Your task to perform on an android device: Go to display settings Image 0: 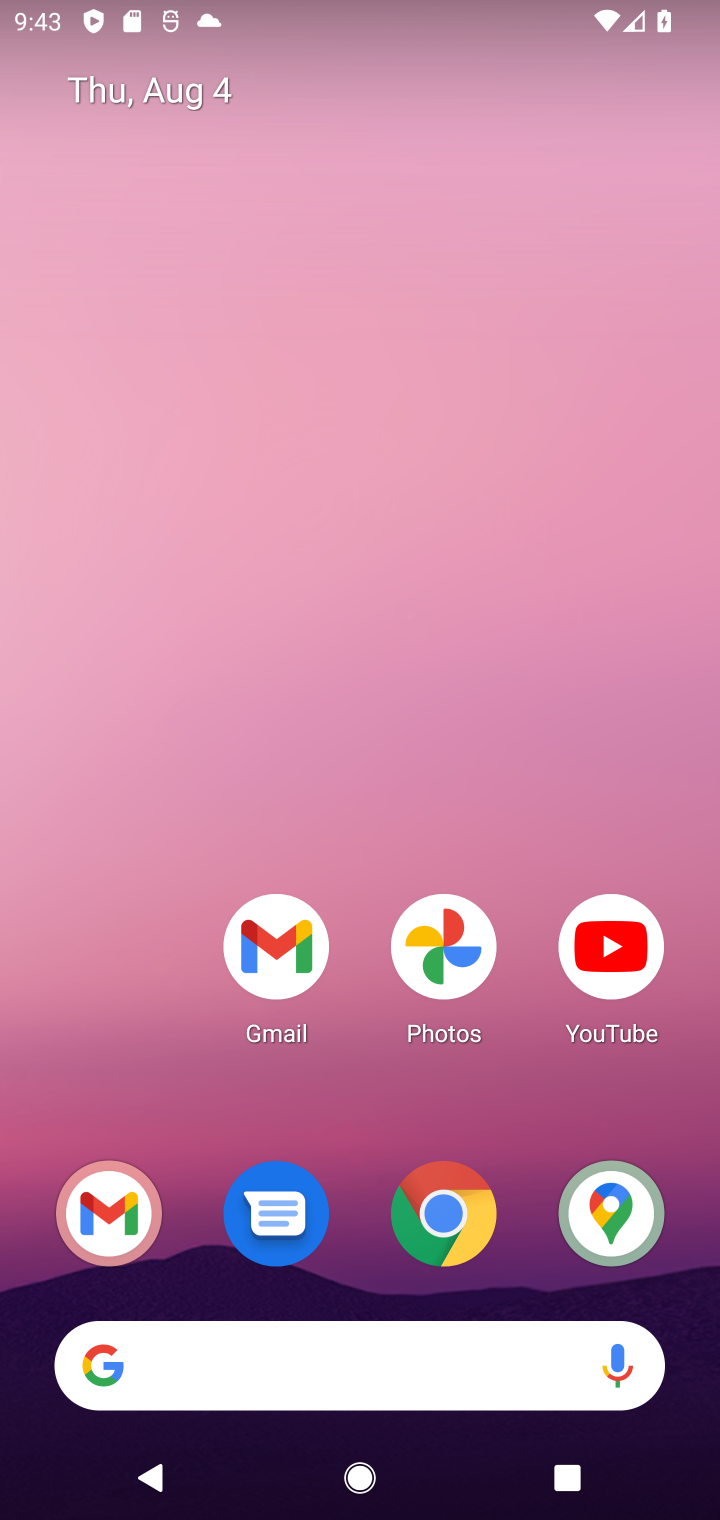
Step 0: press home button
Your task to perform on an android device: Go to display settings Image 1: 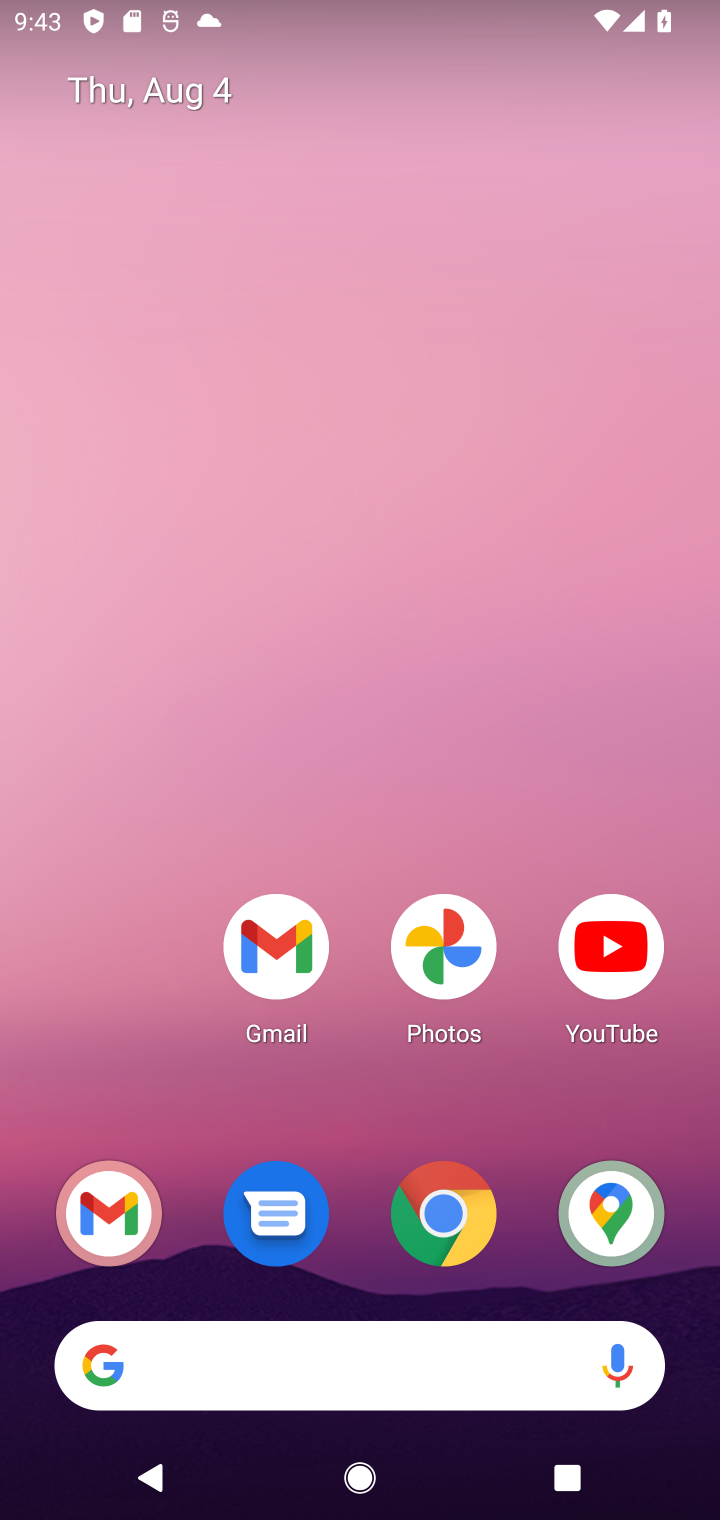
Step 1: drag from (348, 1150) to (328, 177)
Your task to perform on an android device: Go to display settings Image 2: 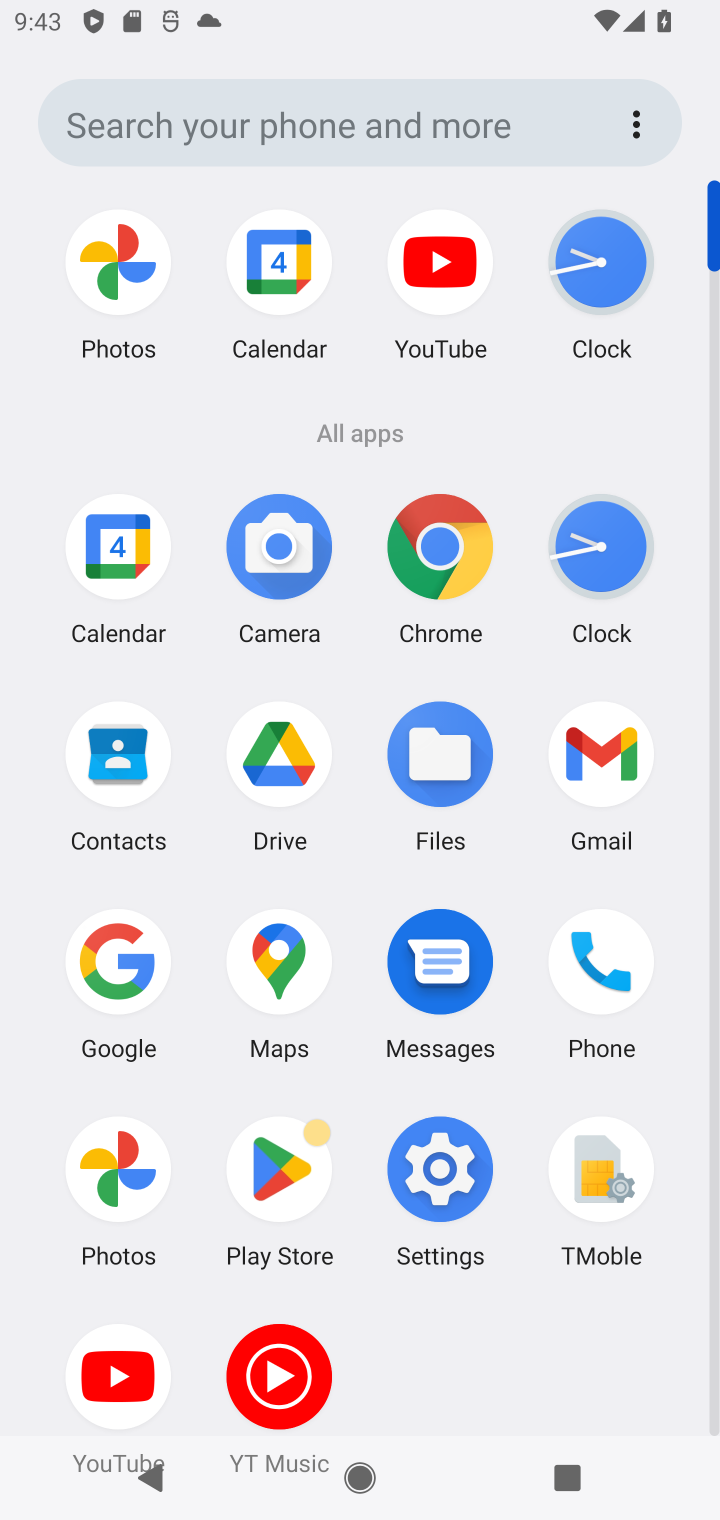
Step 2: click (434, 1138)
Your task to perform on an android device: Go to display settings Image 3: 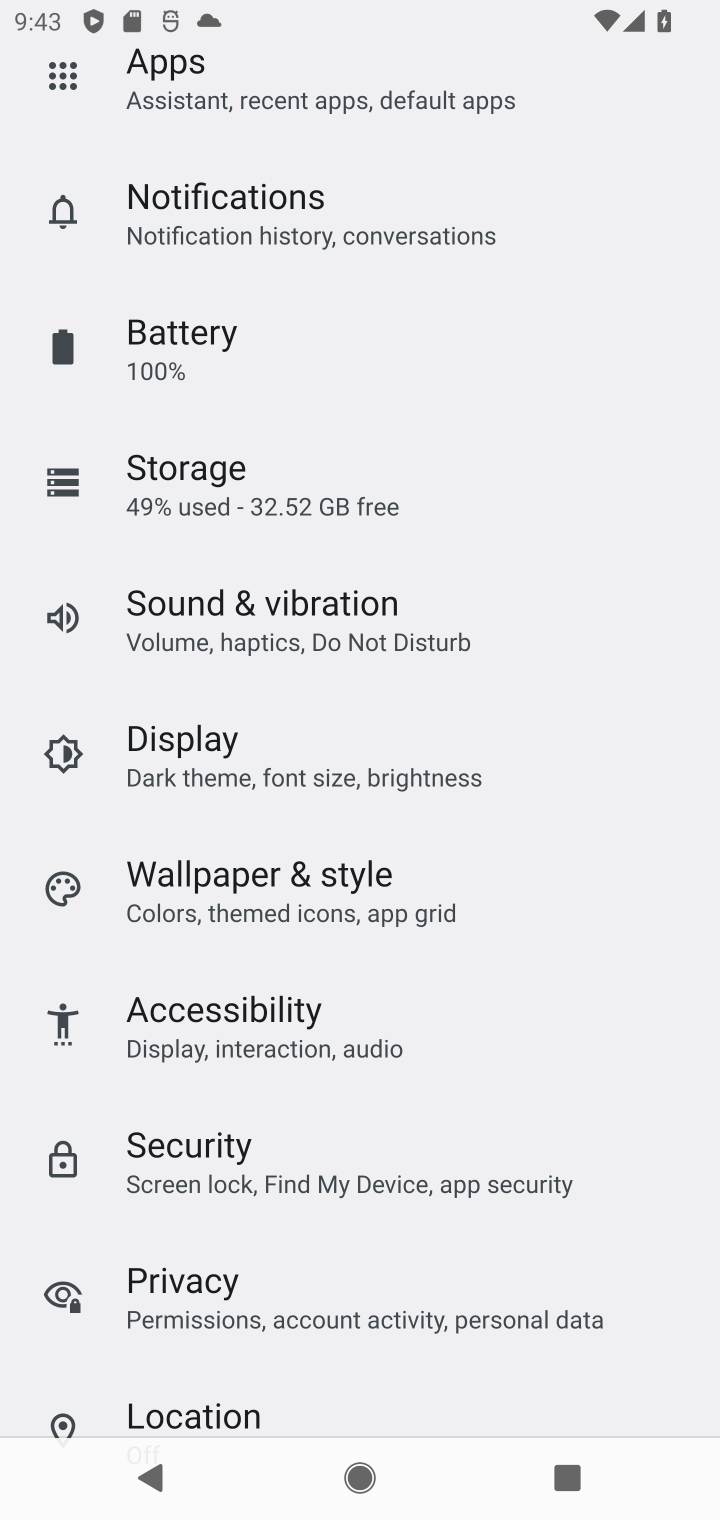
Step 3: click (214, 715)
Your task to perform on an android device: Go to display settings Image 4: 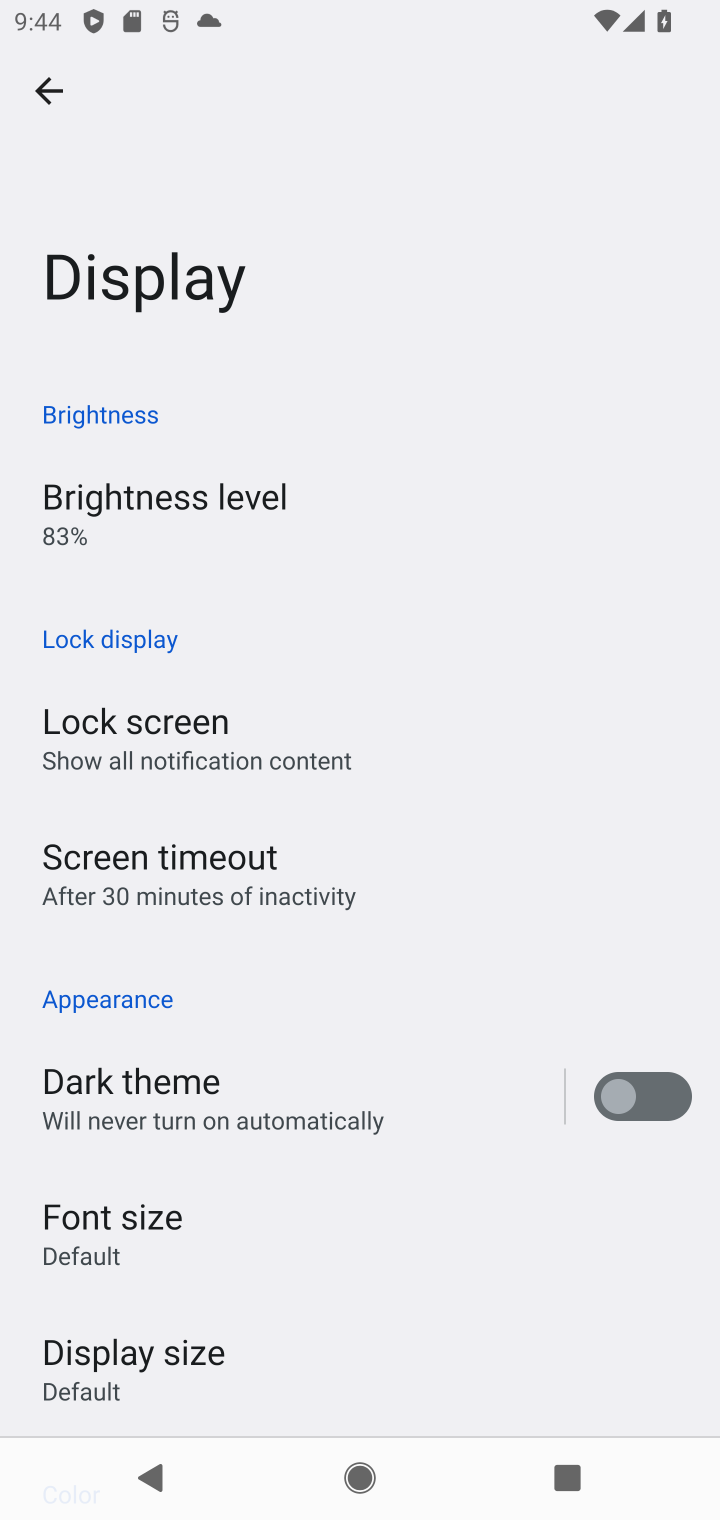
Step 4: task complete